Your task to perform on an android device: Open sound settings Image 0: 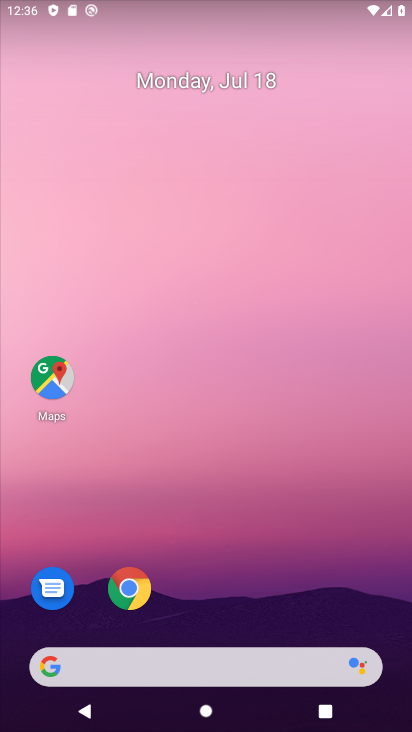
Step 0: drag from (276, 561) to (272, 53)
Your task to perform on an android device: Open sound settings Image 1: 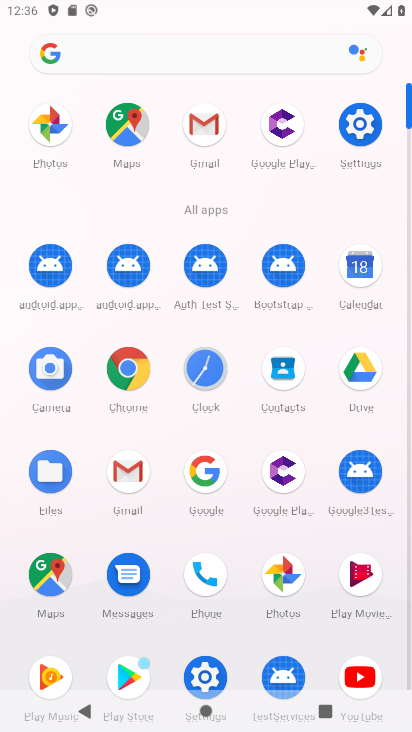
Step 1: click (366, 130)
Your task to perform on an android device: Open sound settings Image 2: 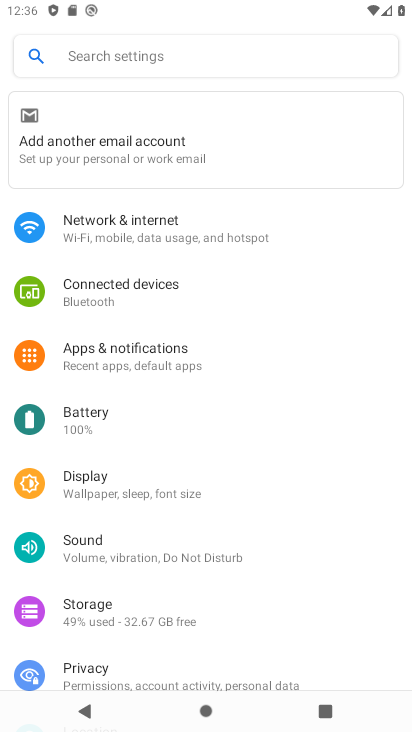
Step 2: click (98, 529)
Your task to perform on an android device: Open sound settings Image 3: 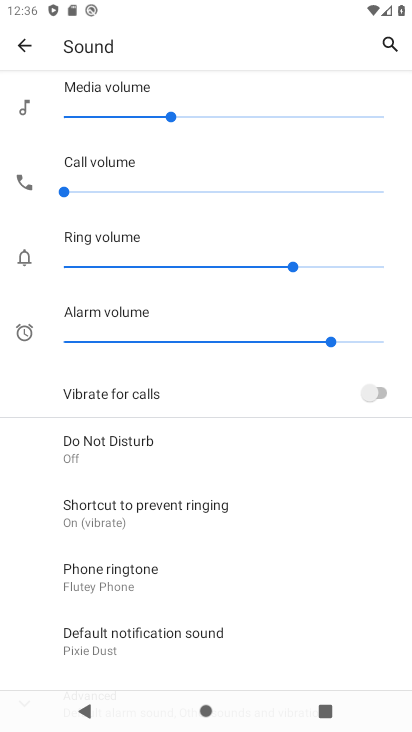
Step 3: task complete